Your task to perform on an android device: toggle improve location accuracy Image 0: 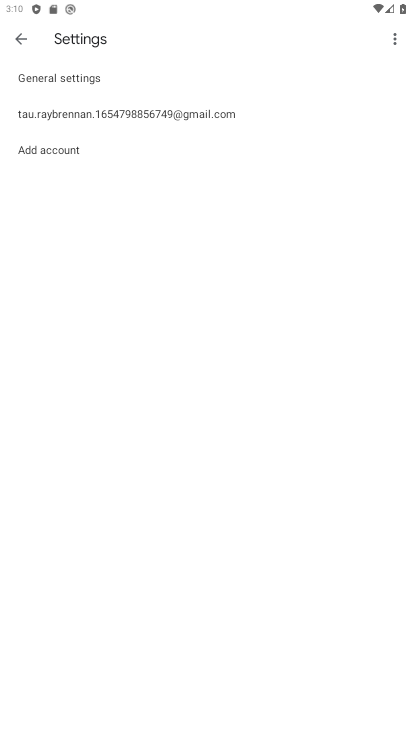
Step 0: click (162, 182)
Your task to perform on an android device: toggle improve location accuracy Image 1: 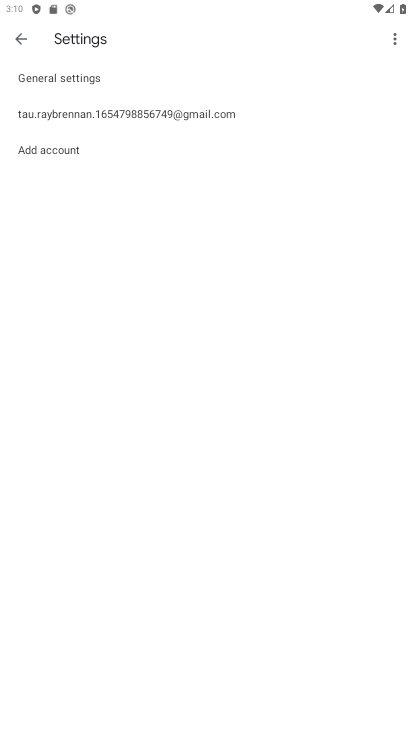
Step 1: press home button
Your task to perform on an android device: toggle improve location accuracy Image 2: 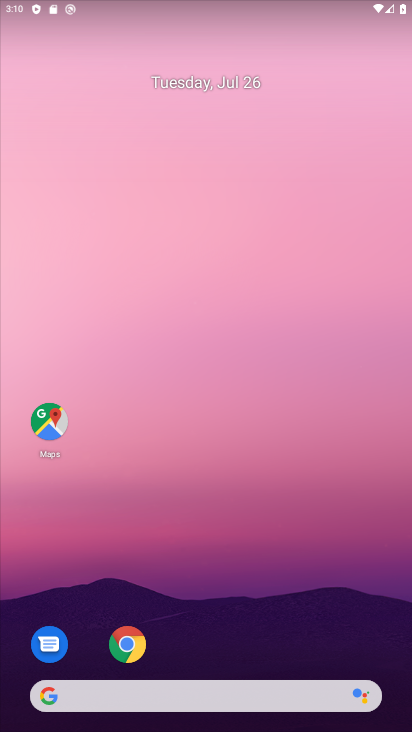
Step 2: drag from (198, 500) to (198, 127)
Your task to perform on an android device: toggle improve location accuracy Image 3: 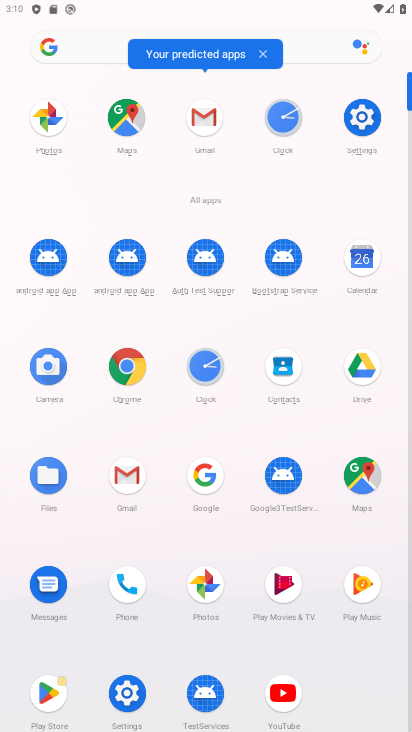
Step 3: click (119, 684)
Your task to perform on an android device: toggle improve location accuracy Image 4: 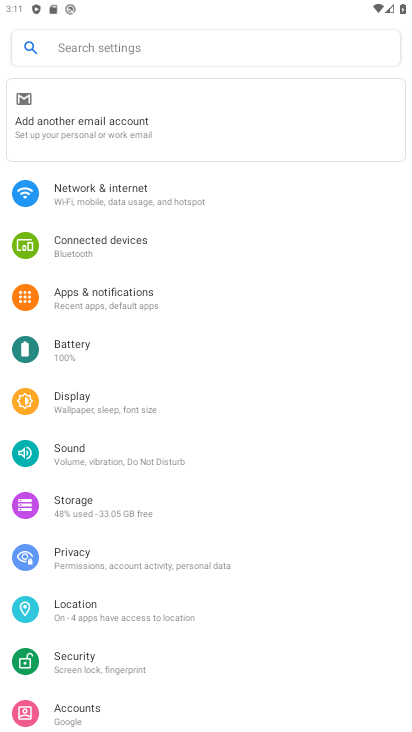
Step 4: click (94, 612)
Your task to perform on an android device: toggle improve location accuracy Image 5: 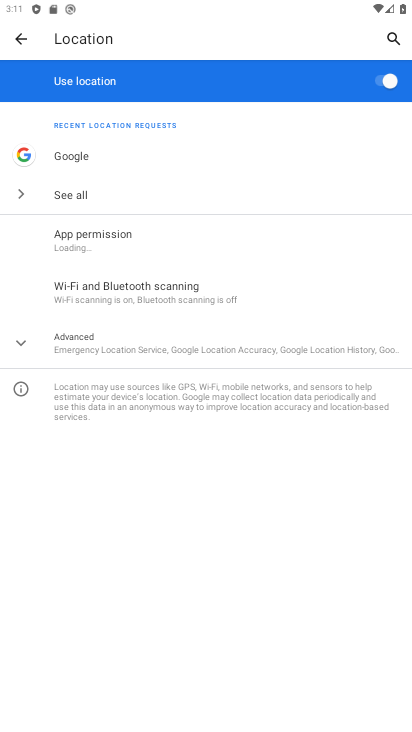
Step 5: click (114, 334)
Your task to perform on an android device: toggle improve location accuracy Image 6: 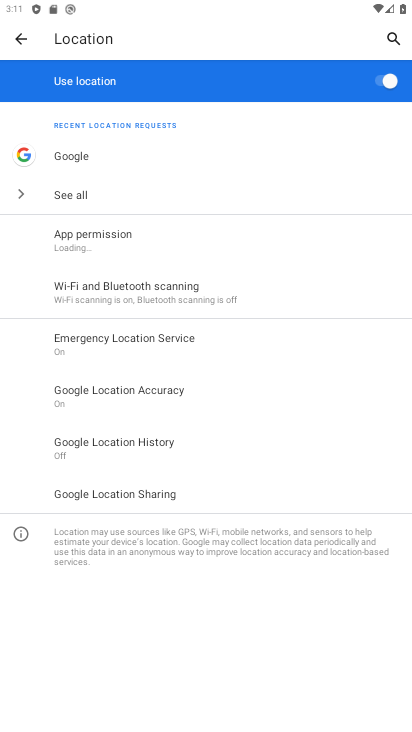
Step 6: click (169, 402)
Your task to perform on an android device: toggle improve location accuracy Image 7: 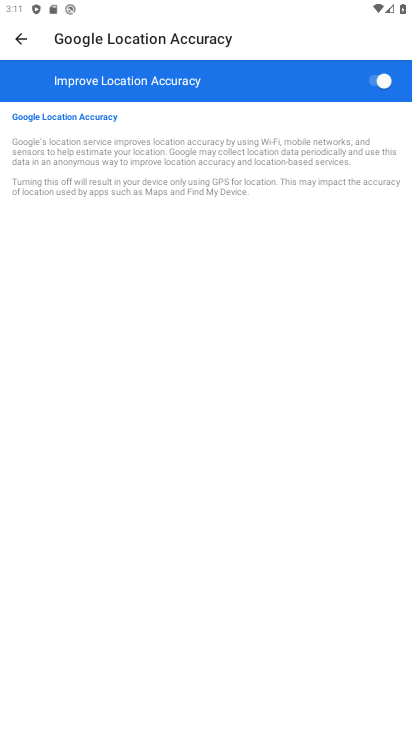
Step 7: click (390, 79)
Your task to perform on an android device: toggle improve location accuracy Image 8: 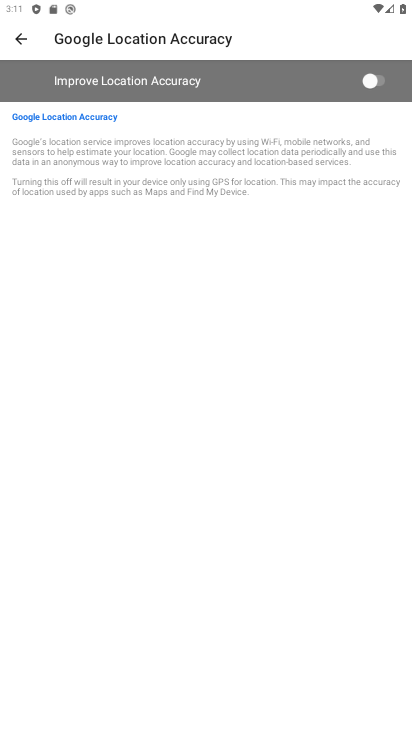
Step 8: task complete